Your task to perform on an android device: move an email to a new category in the gmail app Image 0: 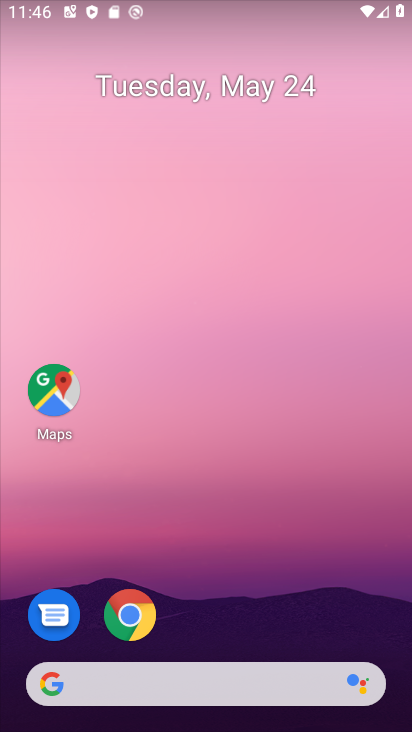
Step 0: drag from (247, 597) to (232, 143)
Your task to perform on an android device: move an email to a new category in the gmail app Image 1: 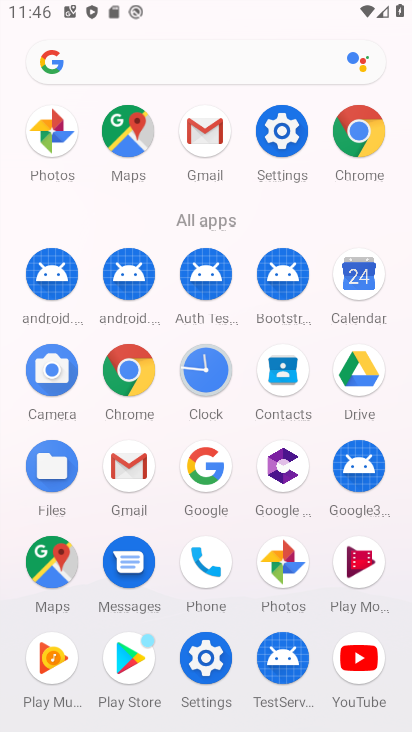
Step 1: click (206, 132)
Your task to perform on an android device: move an email to a new category in the gmail app Image 2: 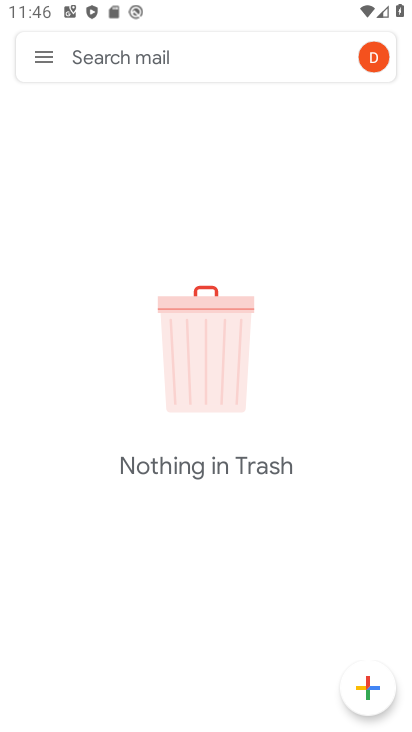
Step 2: click (46, 60)
Your task to perform on an android device: move an email to a new category in the gmail app Image 3: 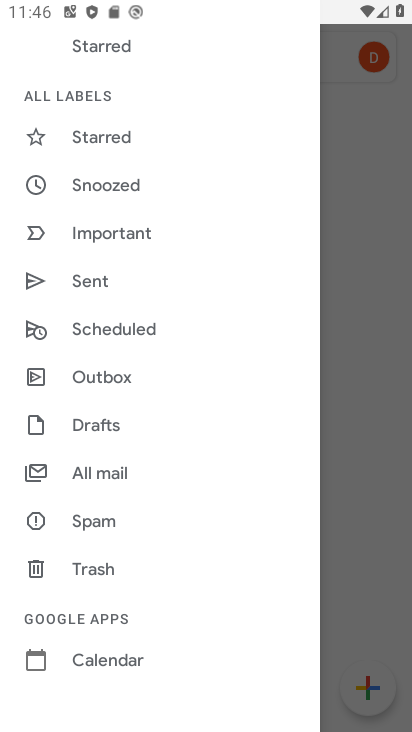
Step 3: click (105, 472)
Your task to perform on an android device: move an email to a new category in the gmail app Image 4: 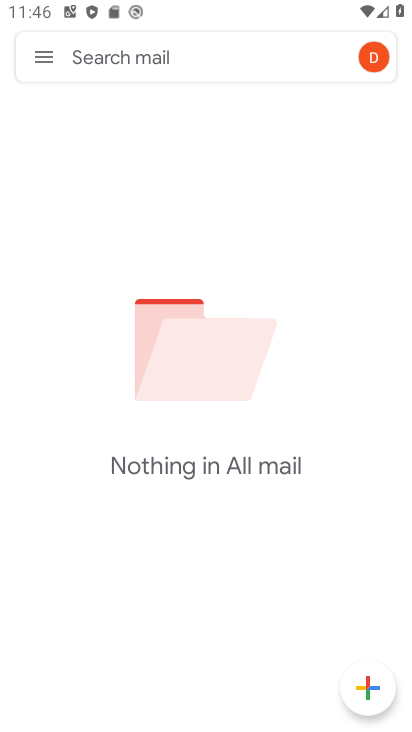
Step 4: task complete